Your task to perform on an android device: check data usage Image 0: 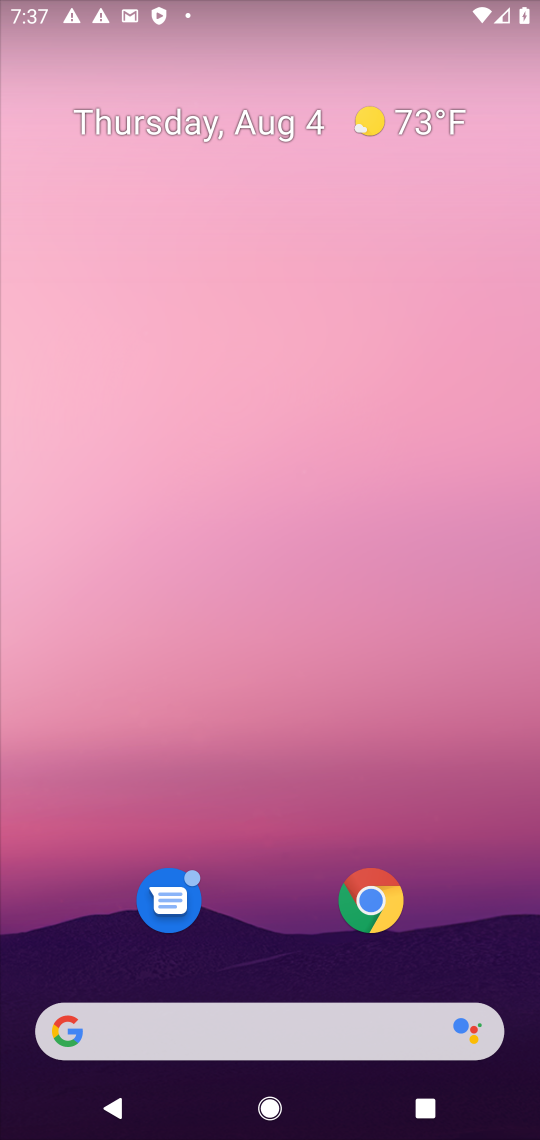
Step 0: drag from (276, 1026) to (461, 89)
Your task to perform on an android device: check data usage Image 1: 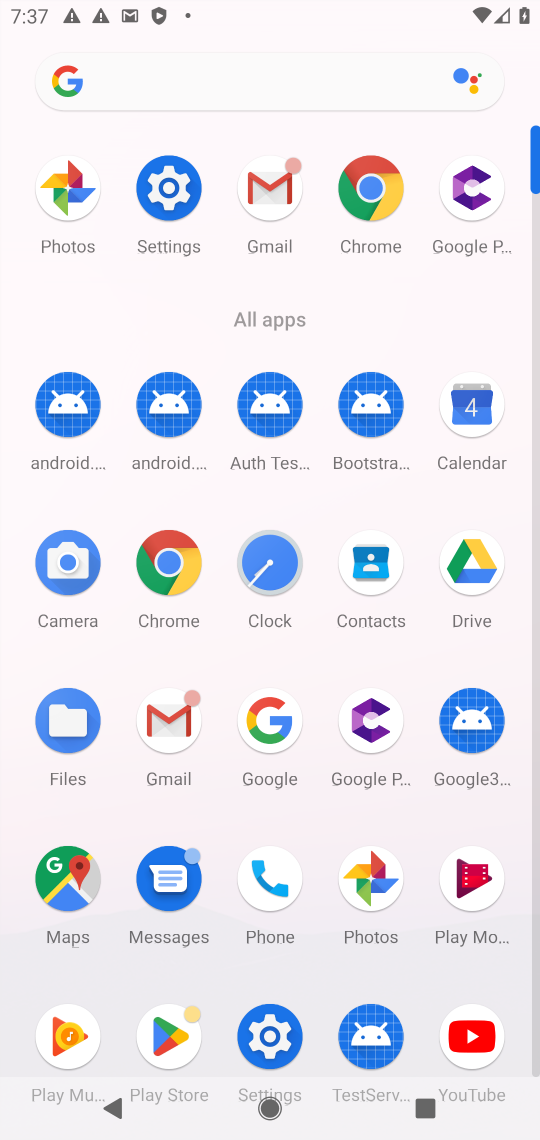
Step 1: click (172, 192)
Your task to perform on an android device: check data usage Image 2: 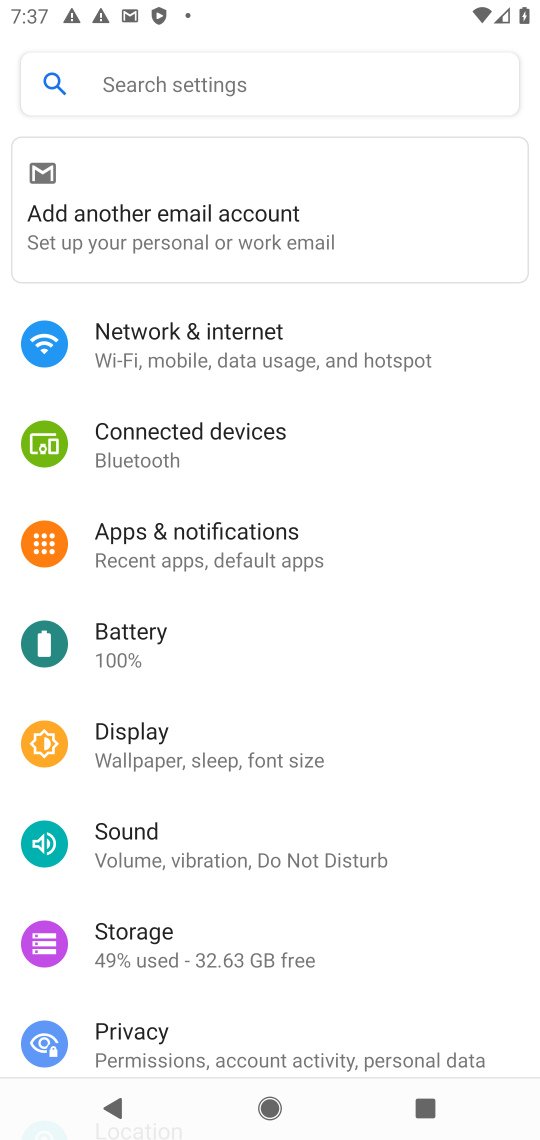
Step 2: click (234, 339)
Your task to perform on an android device: check data usage Image 3: 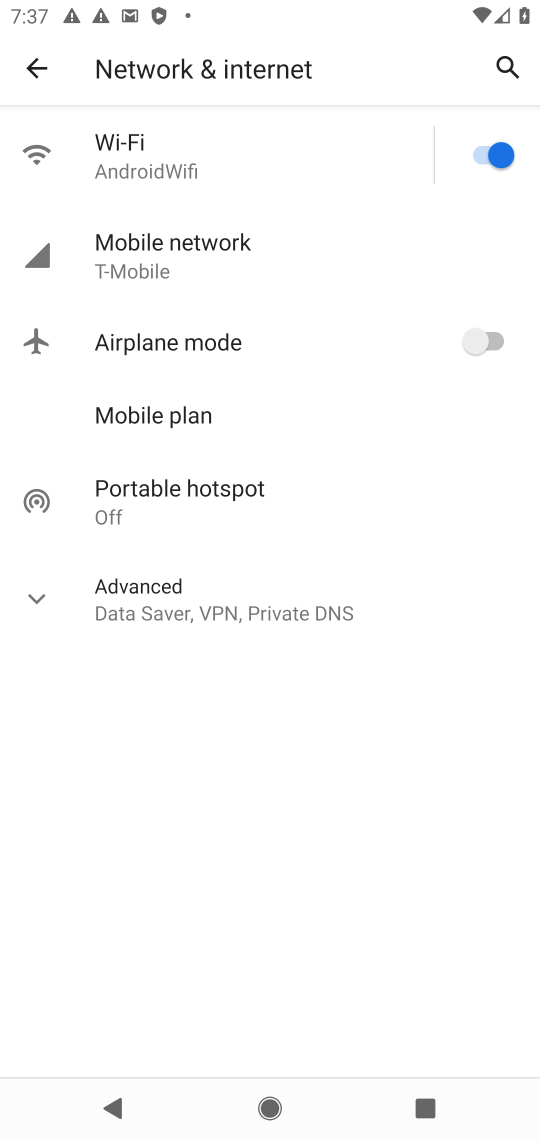
Step 3: click (144, 164)
Your task to perform on an android device: check data usage Image 4: 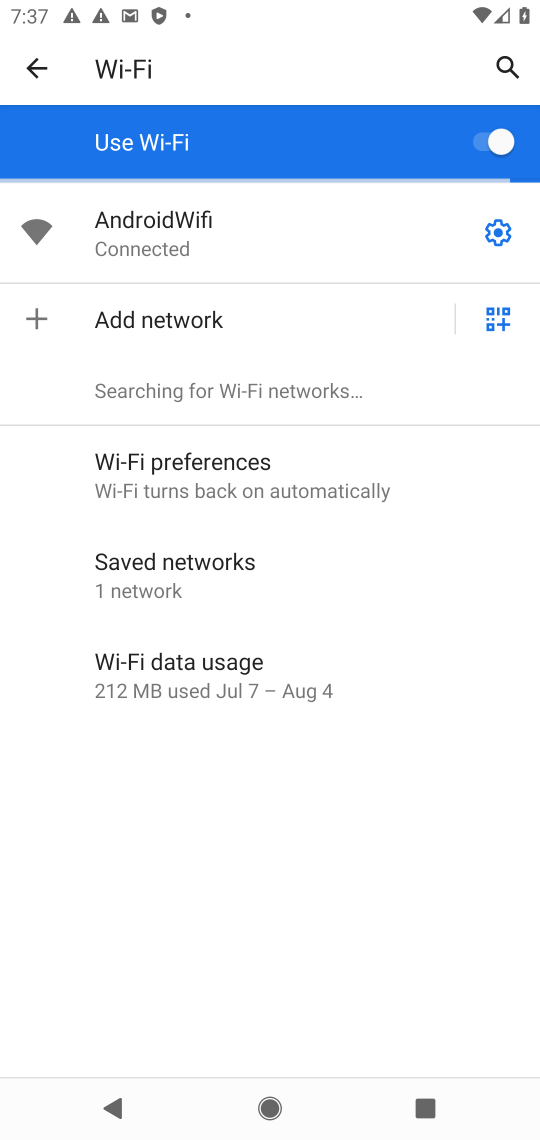
Step 4: click (221, 648)
Your task to perform on an android device: check data usage Image 5: 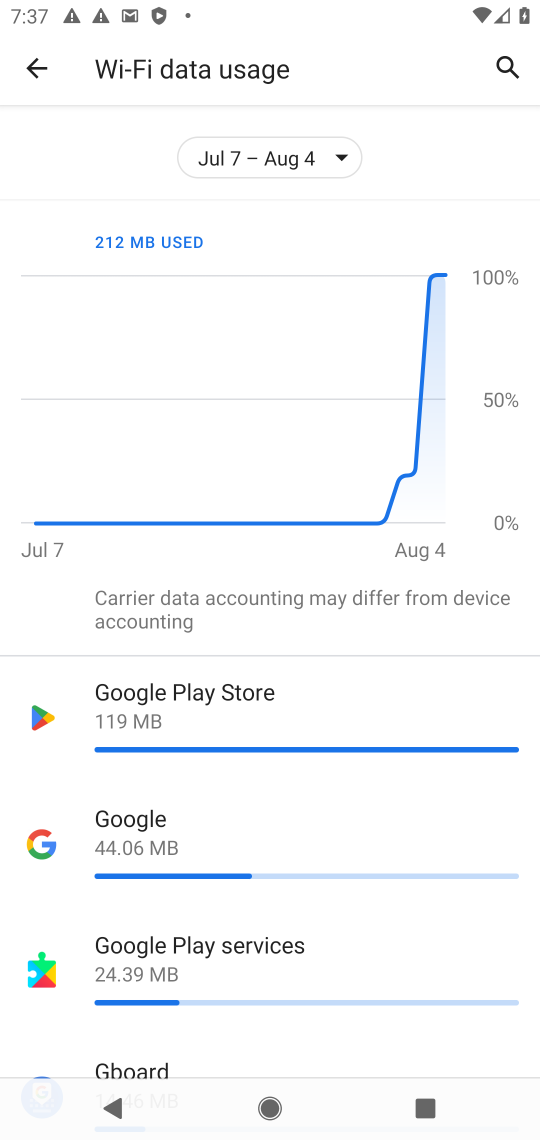
Step 5: click (464, 561)
Your task to perform on an android device: check data usage Image 6: 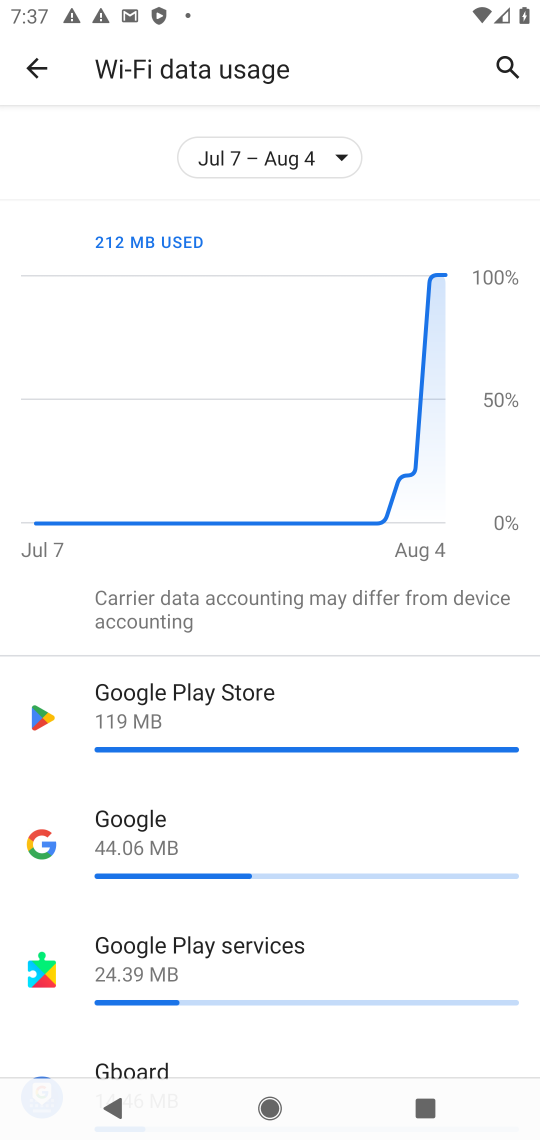
Step 6: task complete